Your task to perform on an android device: Open the map Image 0: 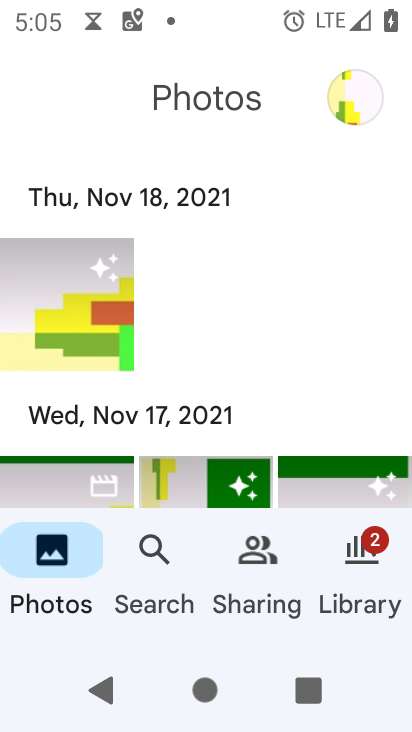
Step 0: press home button
Your task to perform on an android device: Open the map Image 1: 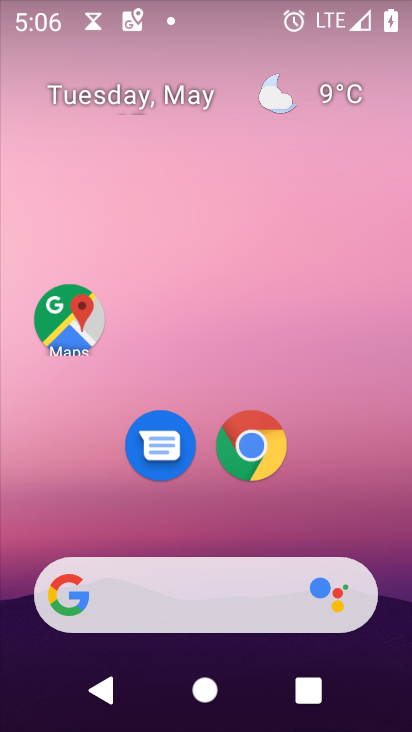
Step 1: drag from (352, 468) to (390, 7)
Your task to perform on an android device: Open the map Image 2: 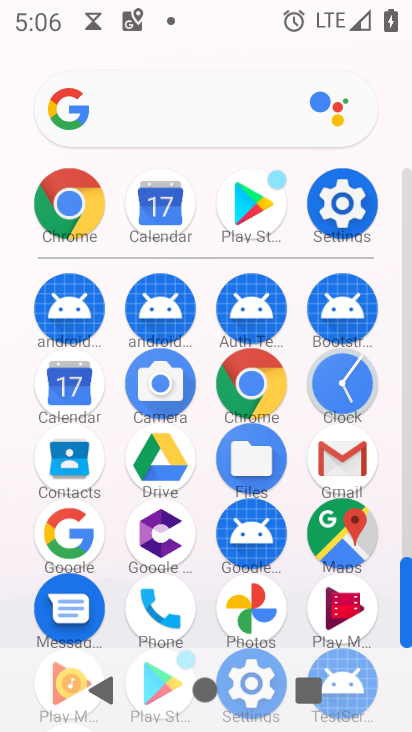
Step 2: click (336, 536)
Your task to perform on an android device: Open the map Image 3: 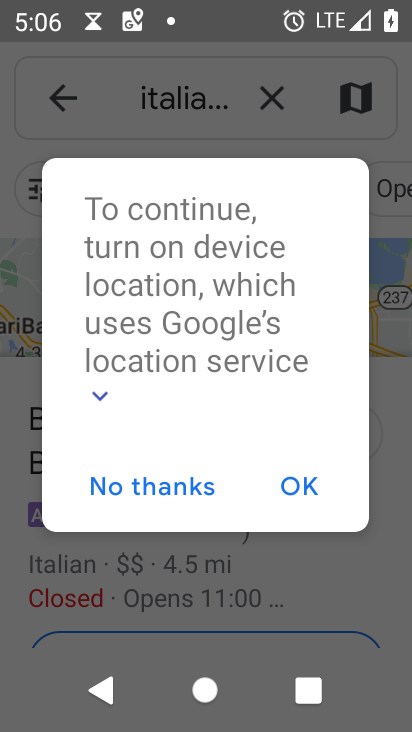
Step 3: click (190, 492)
Your task to perform on an android device: Open the map Image 4: 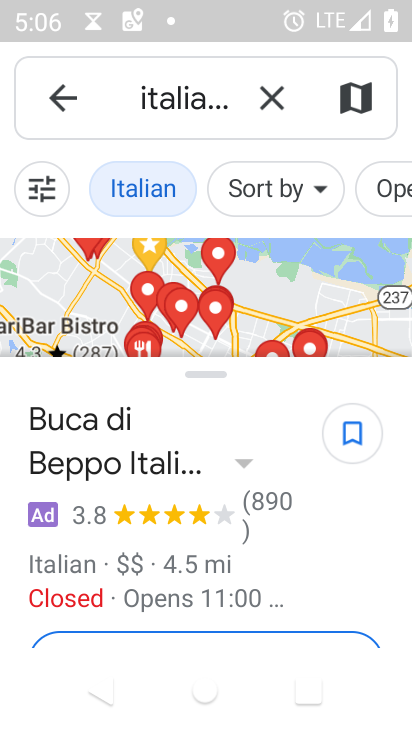
Step 4: task complete